Your task to perform on an android device: What's on my calendar today? Image 0: 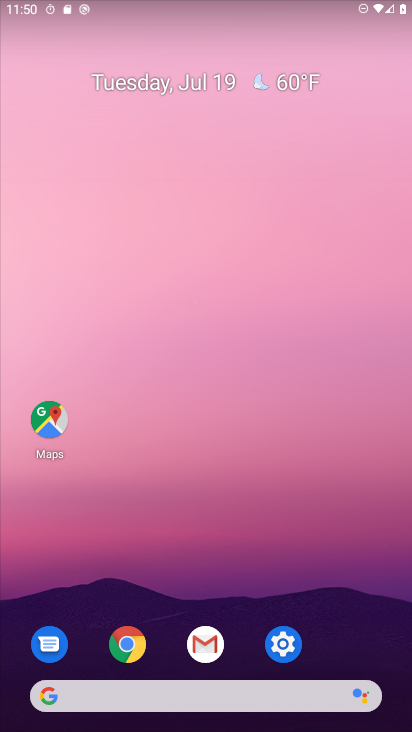
Step 0: drag from (303, 710) to (253, 117)
Your task to perform on an android device: What's on my calendar today? Image 1: 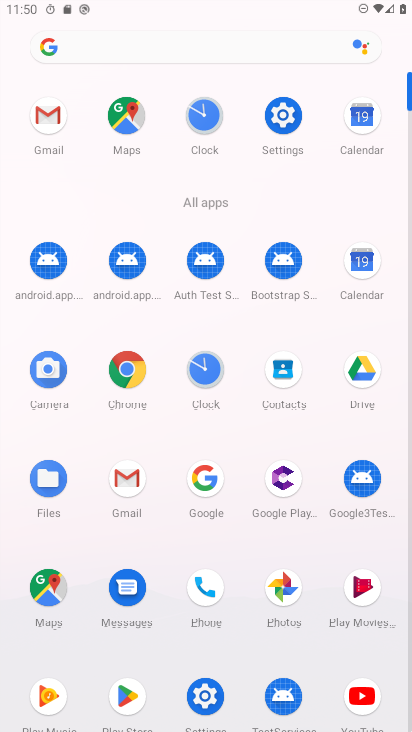
Step 1: click (355, 263)
Your task to perform on an android device: What's on my calendar today? Image 2: 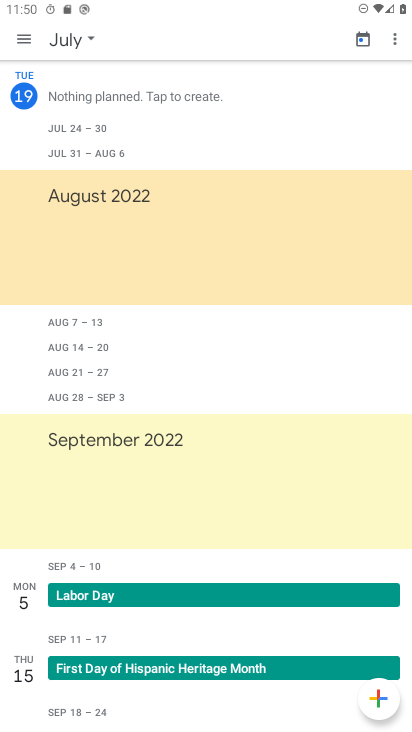
Step 2: click (31, 43)
Your task to perform on an android device: What's on my calendar today? Image 3: 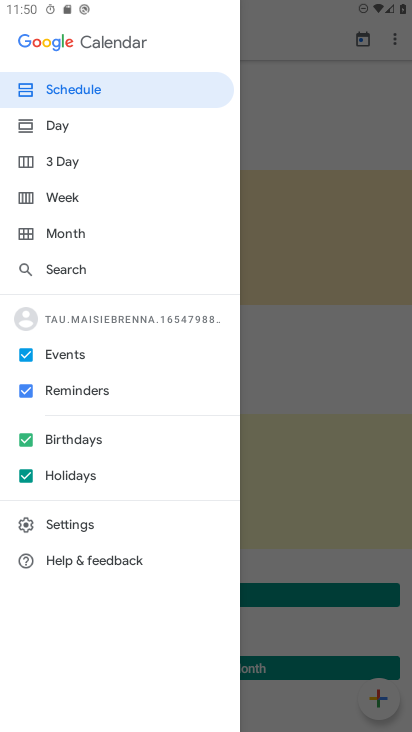
Step 3: click (64, 235)
Your task to perform on an android device: What's on my calendar today? Image 4: 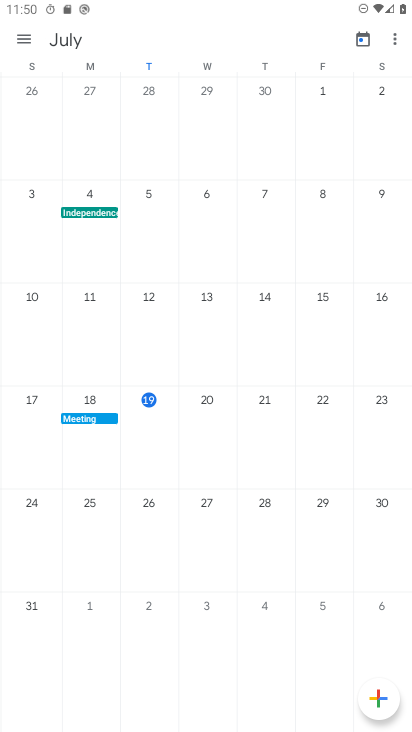
Step 4: click (145, 402)
Your task to perform on an android device: What's on my calendar today? Image 5: 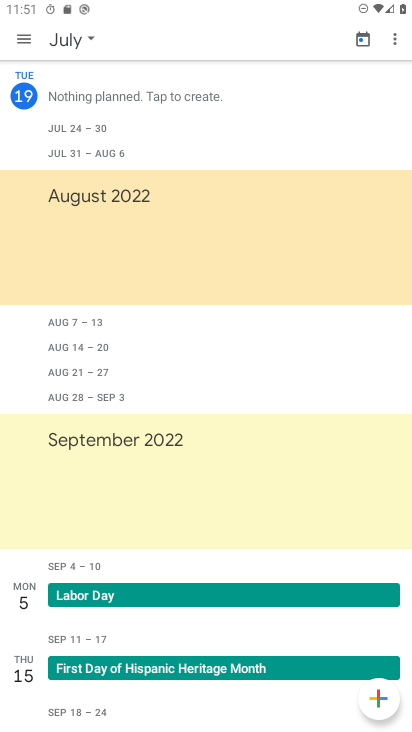
Step 5: task complete